Your task to perform on an android device: open device folders in google photos Image 0: 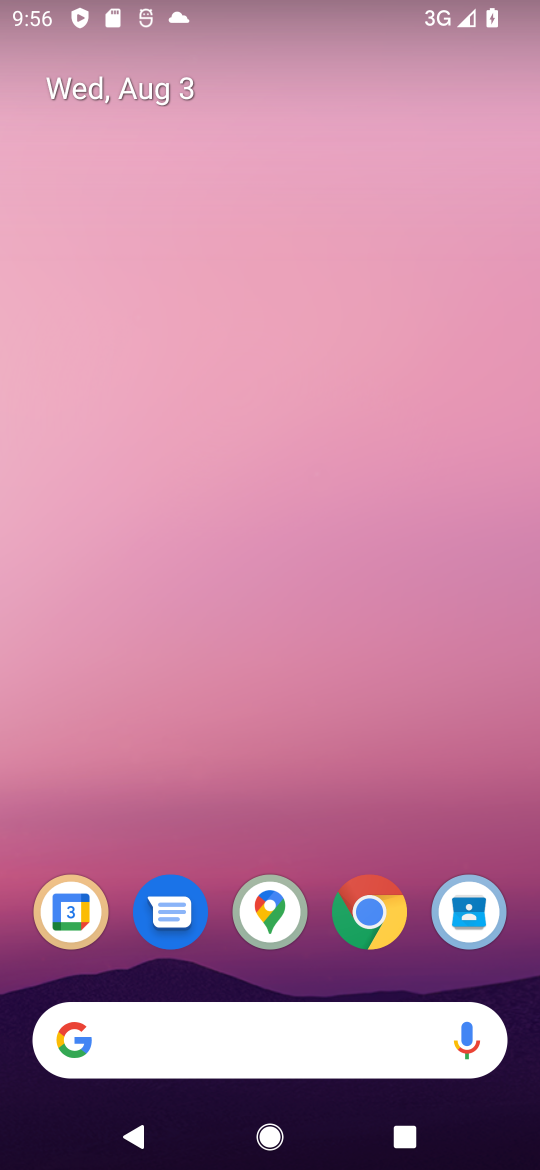
Step 0: drag from (324, 702) to (526, 0)
Your task to perform on an android device: open device folders in google photos Image 1: 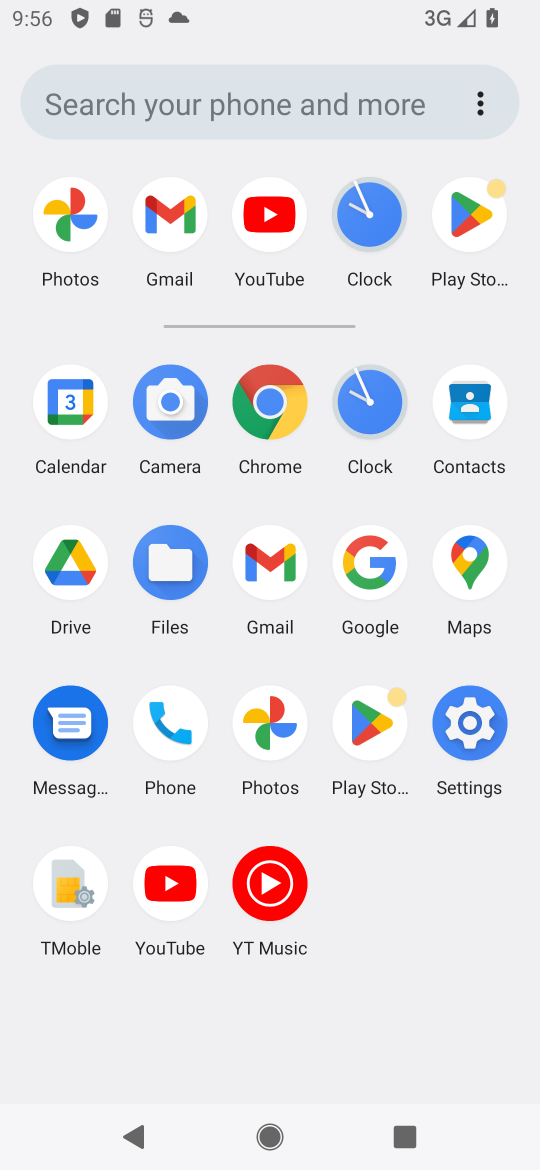
Step 1: click (83, 260)
Your task to perform on an android device: open device folders in google photos Image 2: 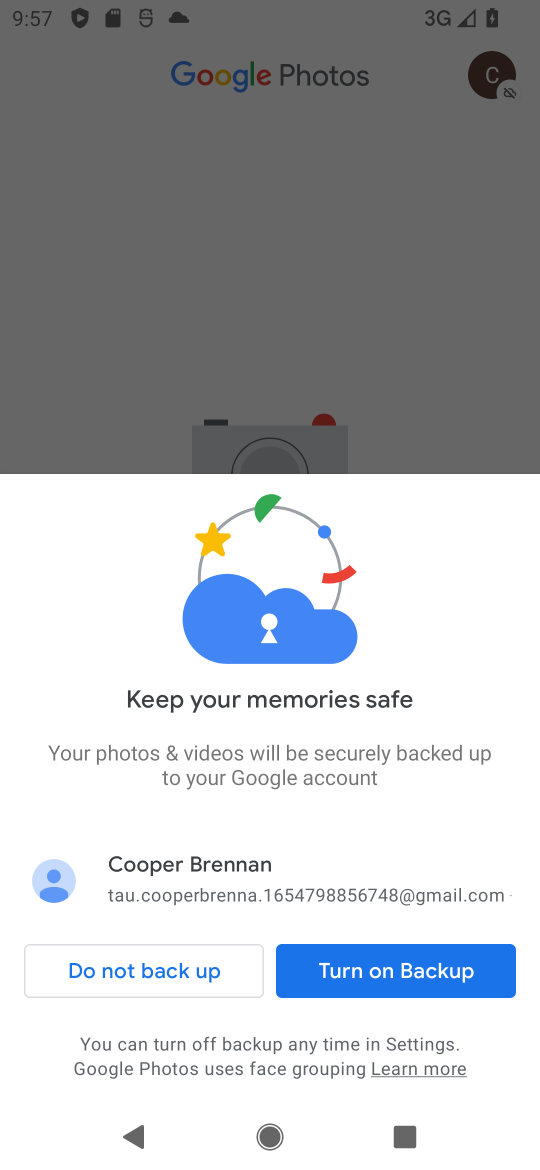
Step 2: click (384, 977)
Your task to perform on an android device: open device folders in google photos Image 3: 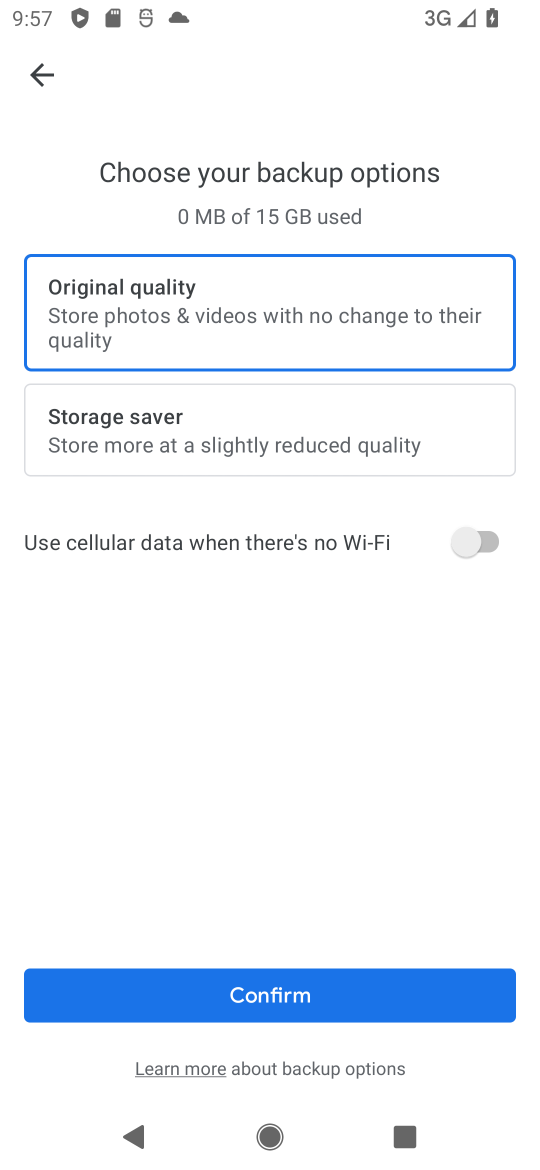
Step 3: click (286, 979)
Your task to perform on an android device: open device folders in google photos Image 4: 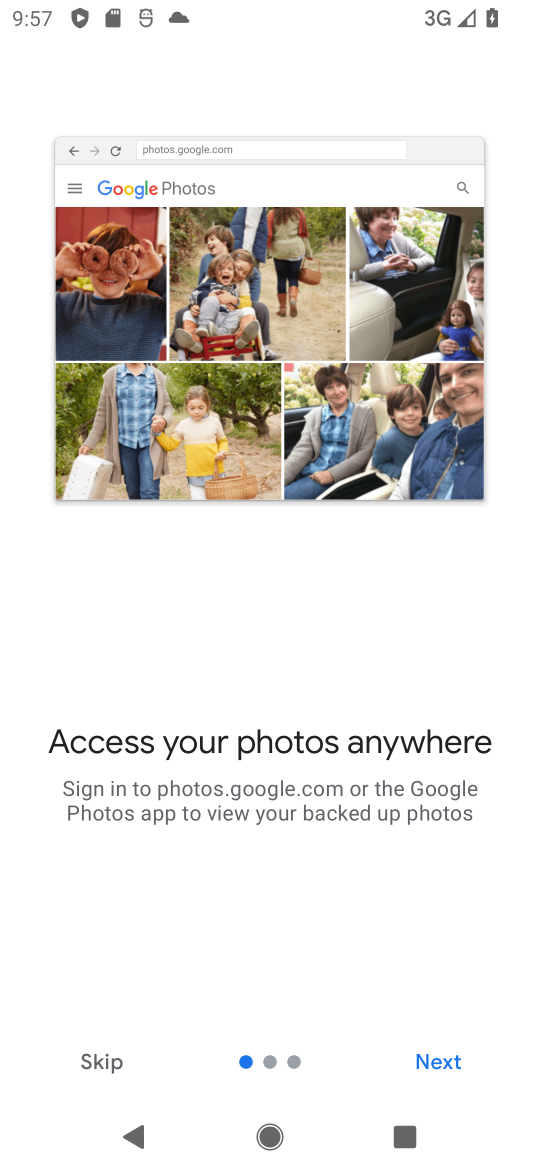
Step 4: click (422, 1044)
Your task to perform on an android device: open device folders in google photos Image 5: 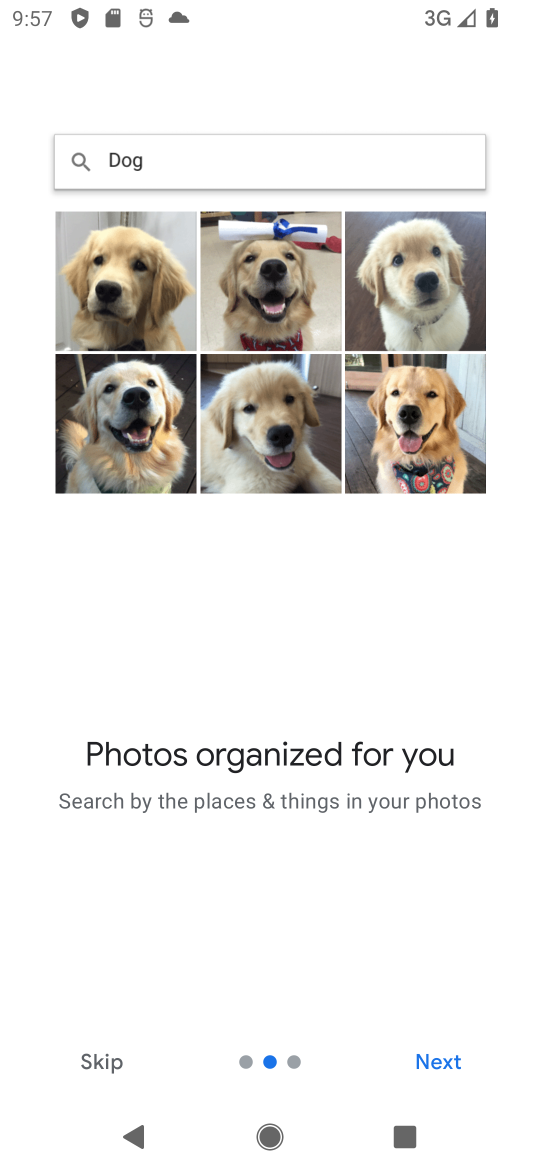
Step 5: click (422, 1067)
Your task to perform on an android device: open device folders in google photos Image 6: 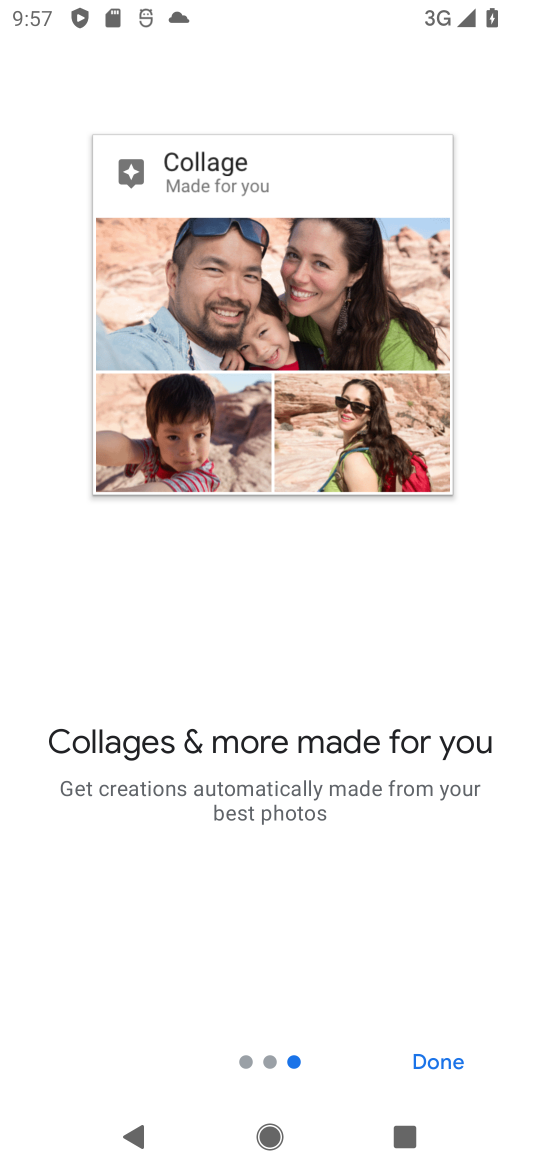
Step 6: click (420, 1061)
Your task to perform on an android device: open device folders in google photos Image 7: 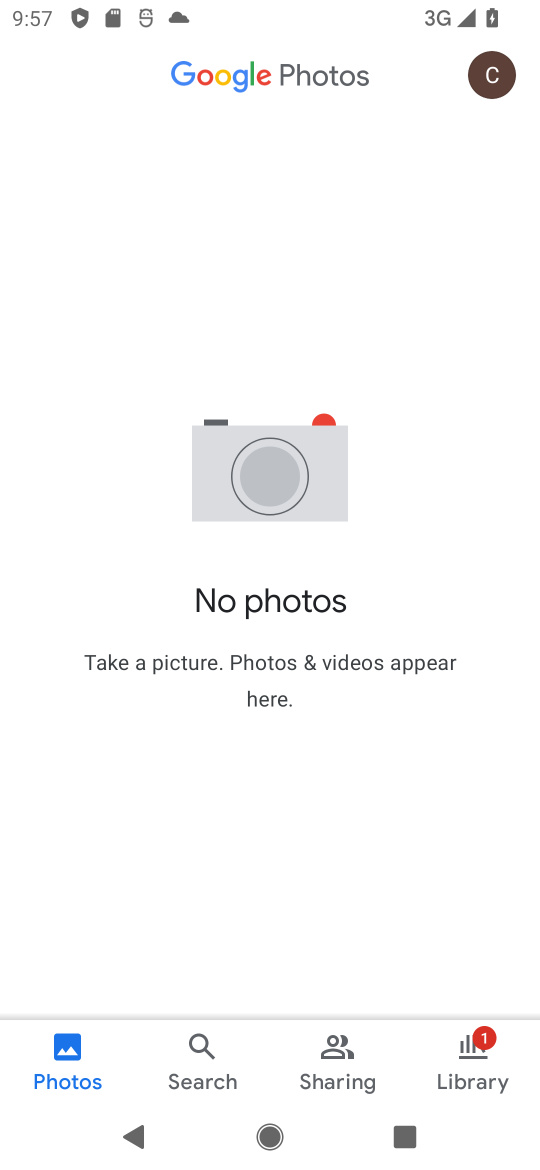
Step 7: click (495, 60)
Your task to perform on an android device: open device folders in google photos Image 8: 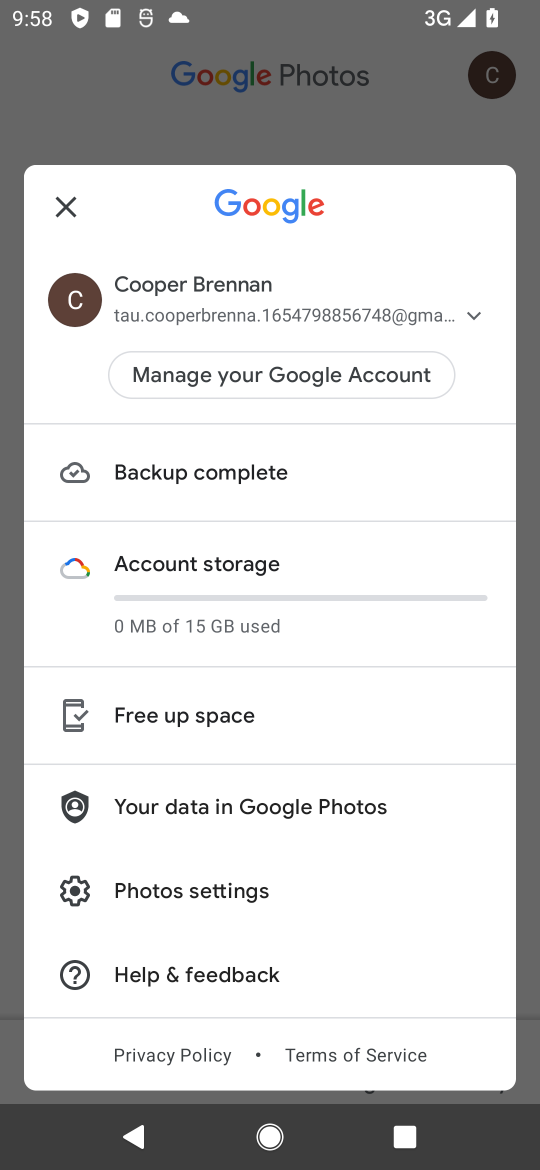
Step 8: task complete